Your task to perform on an android device: add a contact in the contacts app Image 0: 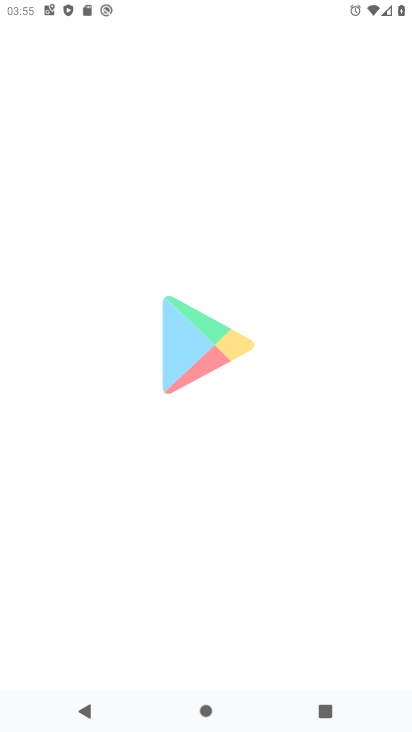
Step 0: press home button
Your task to perform on an android device: add a contact in the contacts app Image 1: 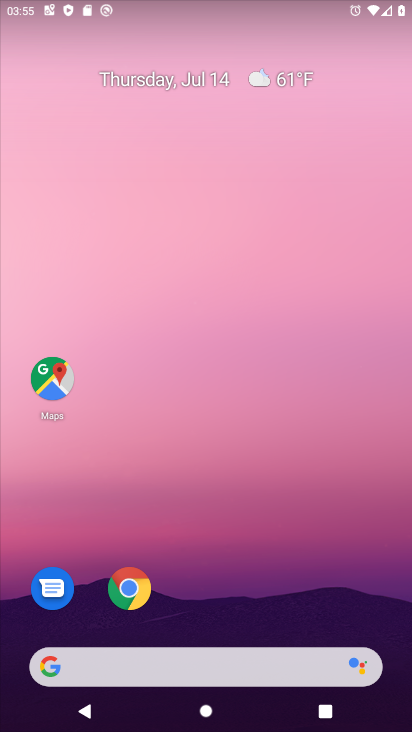
Step 1: press home button
Your task to perform on an android device: add a contact in the contacts app Image 2: 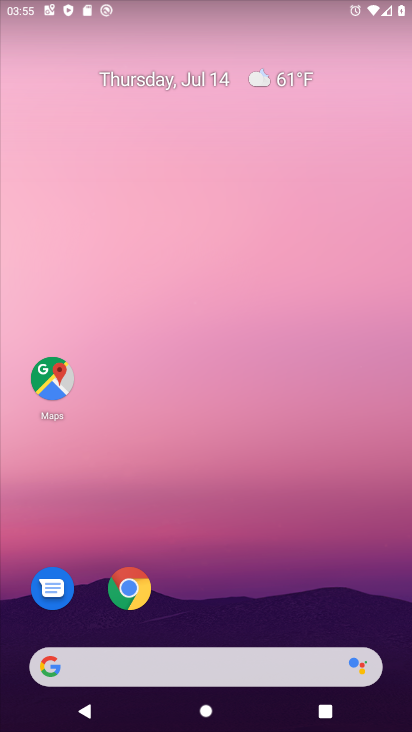
Step 2: click (296, 256)
Your task to perform on an android device: add a contact in the contacts app Image 3: 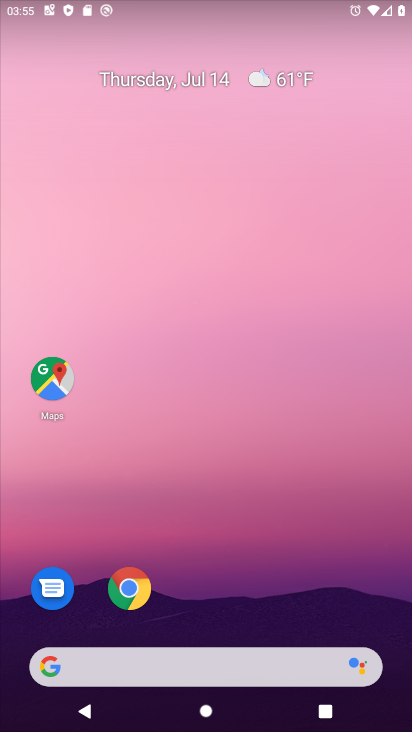
Step 3: click (215, 181)
Your task to perform on an android device: add a contact in the contacts app Image 4: 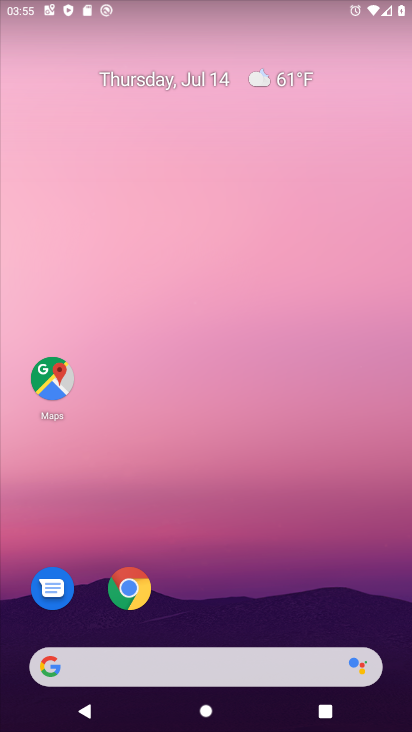
Step 4: drag from (280, 625) to (267, 3)
Your task to perform on an android device: add a contact in the contacts app Image 5: 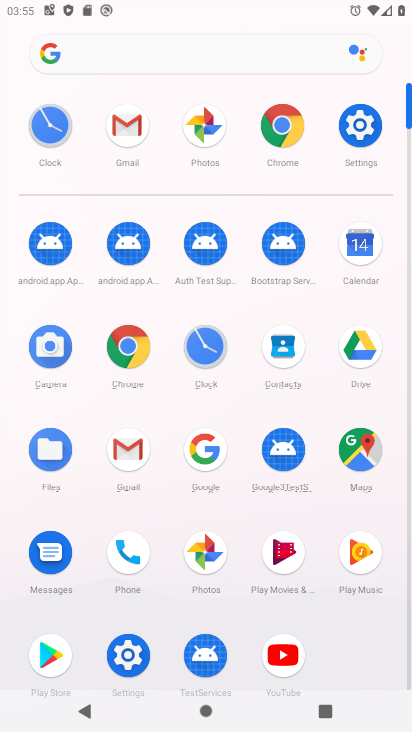
Step 5: click (281, 341)
Your task to perform on an android device: add a contact in the contacts app Image 6: 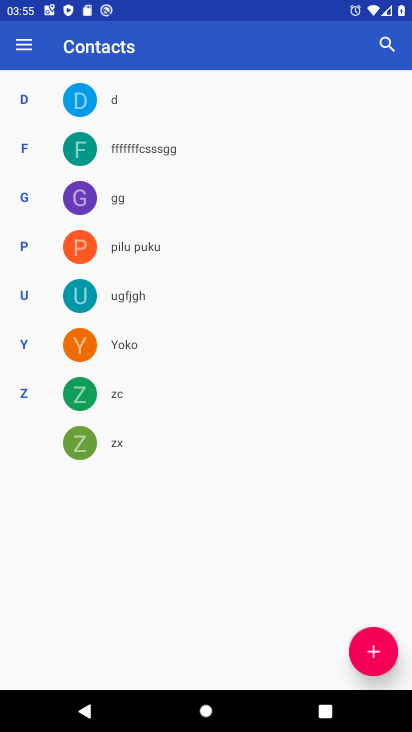
Step 6: click (381, 647)
Your task to perform on an android device: add a contact in the contacts app Image 7: 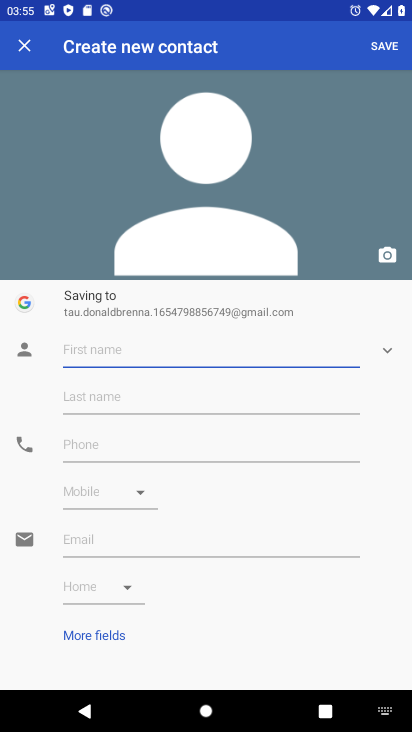
Step 7: type "sfggd"
Your task to perform on an android device: add a contact in the contacts app Image 8: 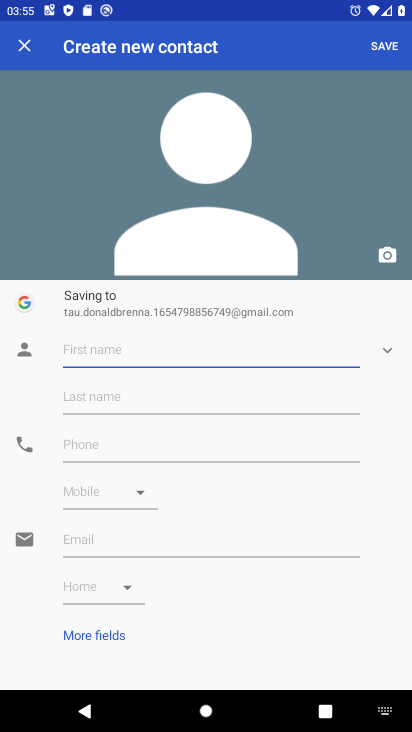
Step 8: click (94, 354)
Your task to perform on an android device: add a contact in the contacts app Image 9: 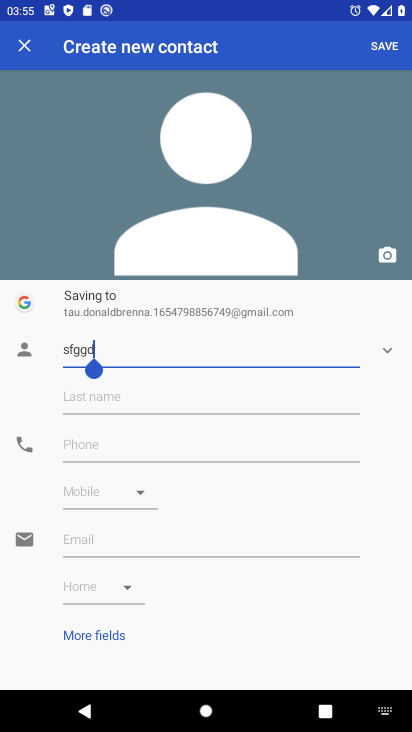
Step 9: click (94, 439)
Your task to perform on an android device: add a contact in the contacts app Image 10: 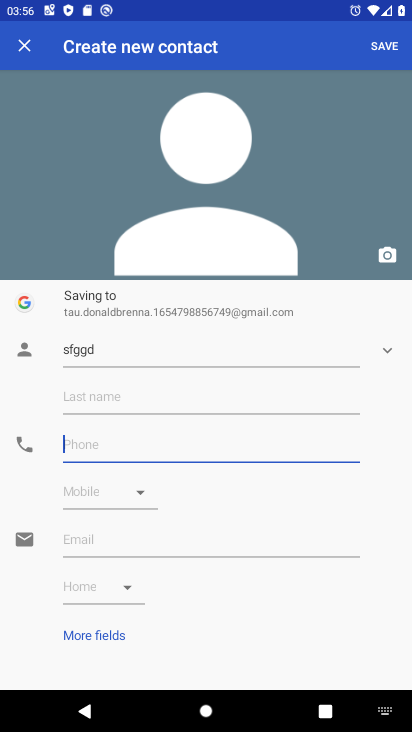
Step 10: type "504484"
Your task to perform on an android device: add a contact in the contacts app Image 11: 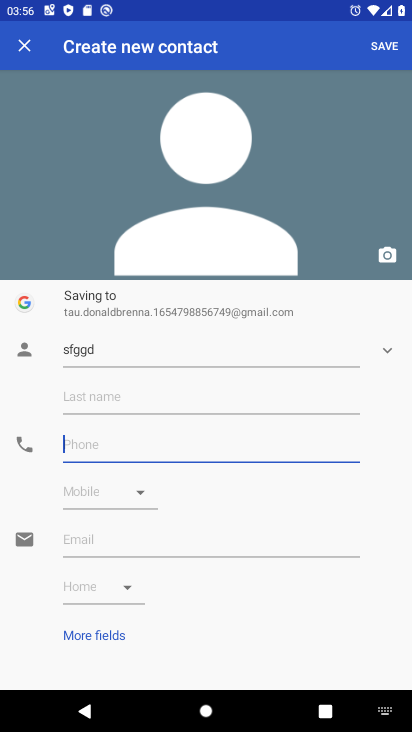
Step 11: click (99, 443)
Your task to perform on an android device: add a contact in the contacts app Image 12: 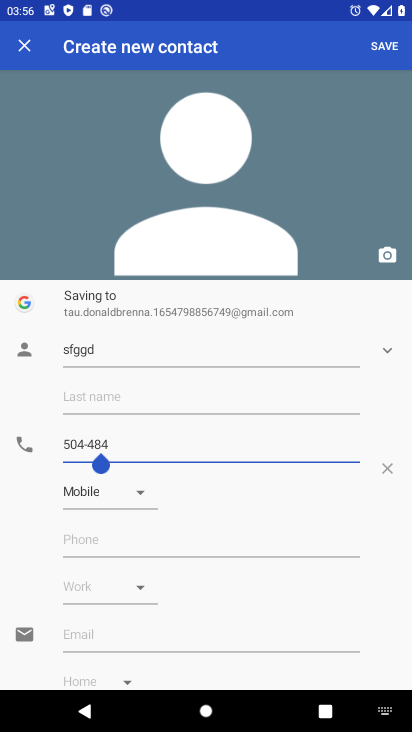
Step 12: click (377, 42)
Your task to perform on an android device: add a contact in the contacts app Image 13: 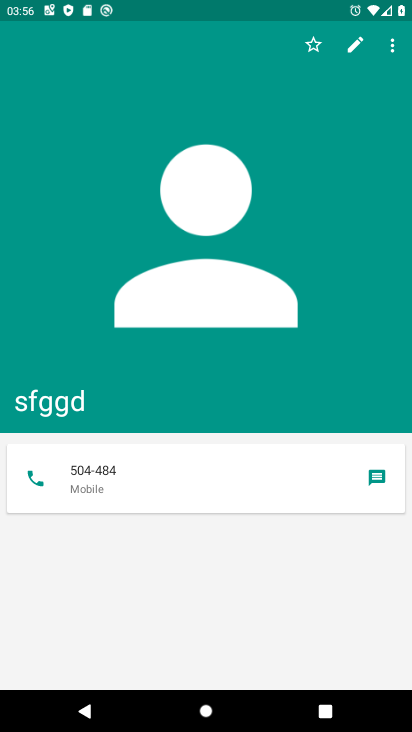
Step 13: task complete